Your task to perform on an android device: toggle notifications settings in the gmail app Image 0: 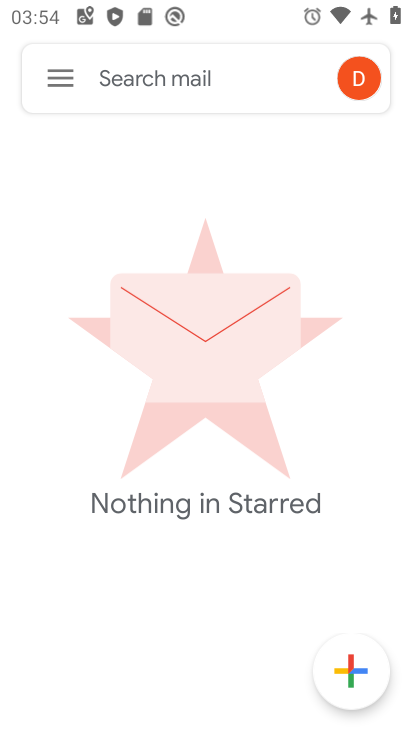
Step 0: press home button
Your task to perform on an android device: toggle notifications settings in the gmail app Image 1: 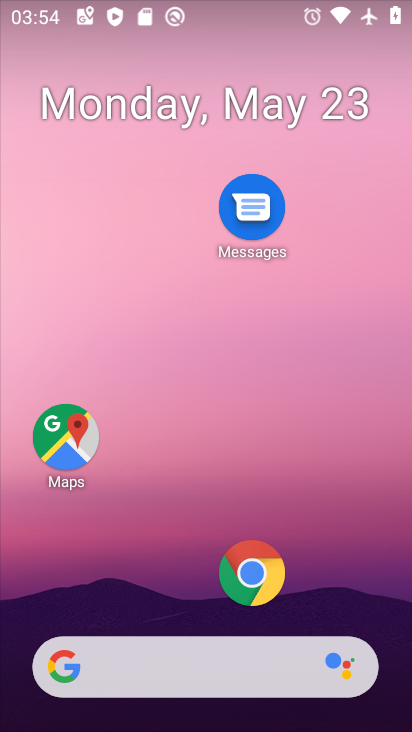
Step 1: drag from (263, 568) to (296, 13)
Your task to perform on an android device: toggle notifications settings in the gmail app Image 2: 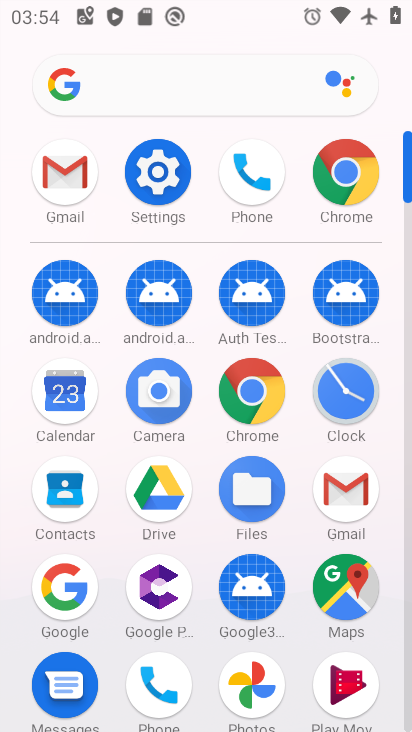
Step 2: click (347, 490)
Your task to perform on an android device: toggle notifications settings in the gmail app Image 3: 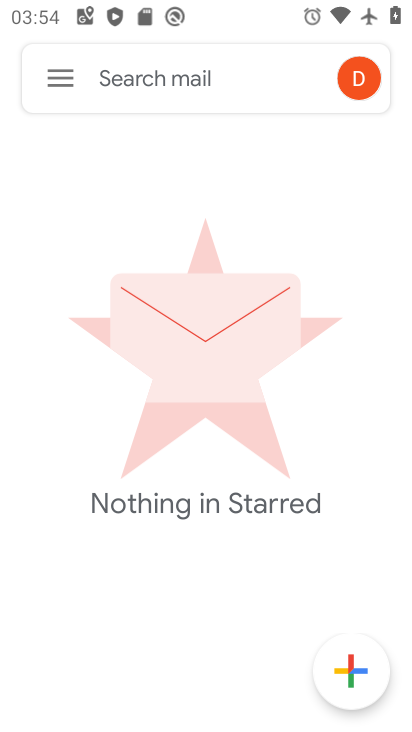
Step 3: click (69, 83)
Your task to perform on an android device: toggle notifications settings in the gmail app Image 4: 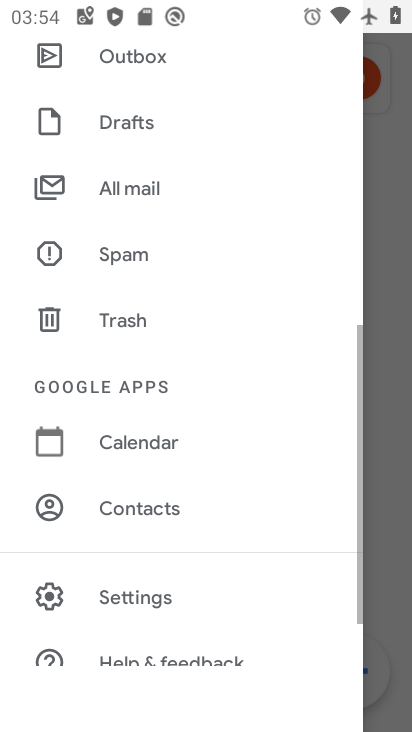
Step 4: click (194, 600)
Your task to perform on an android device: toggle notifications settings in the gmail app Image 5: 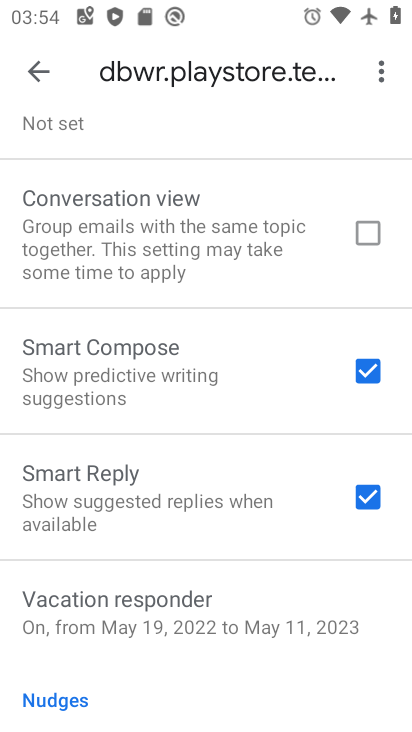
Step 5: drag from (209, 681) to (136, 137)
Your task to perform on an android device: toggle notifications settings in the gmail app Image 6: 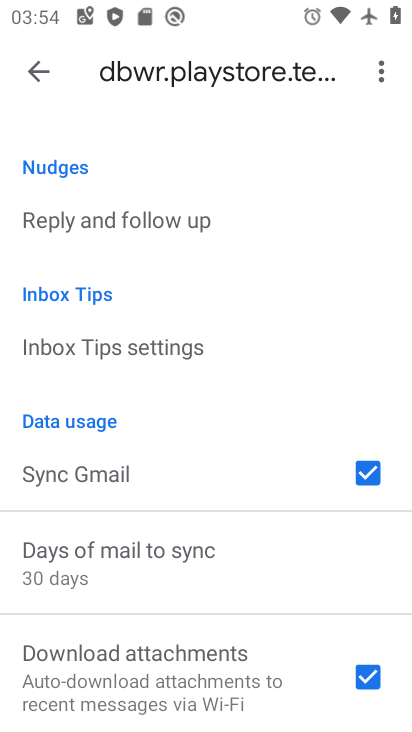
Step 6: drag from (149, 678) to (140, 242)
Your task to perform on an android device: toggle notifications settings in the gmail app Image 7: 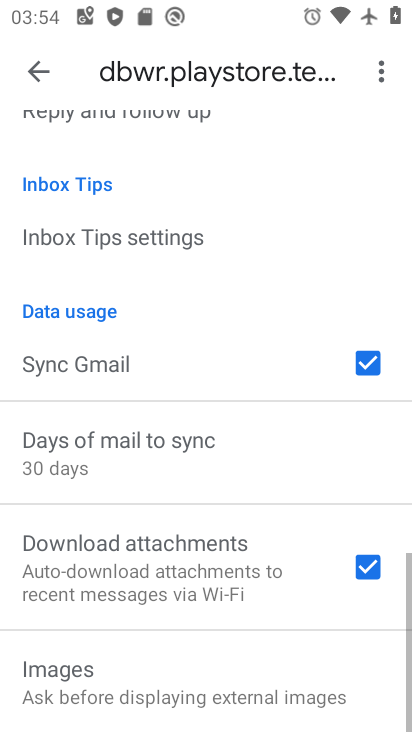
Step 7: drag from (145, 192) to (184, 711)
Your task to perform on an android device: toggle notifications settings in the gmail app Image 8: 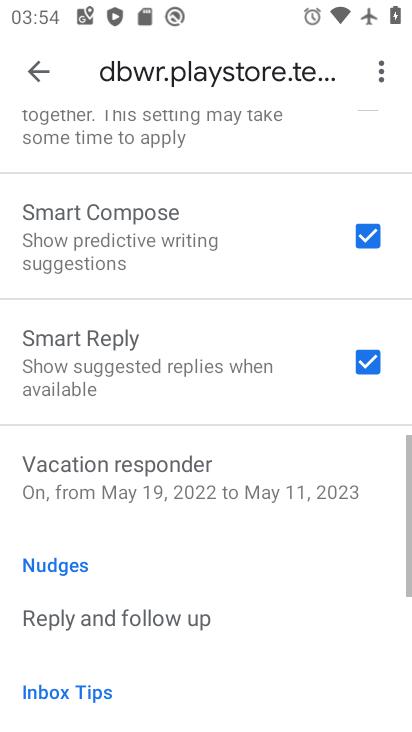
Step 8: drag from (165, 175) to (185, 723)
Your task to perform on an android device: toggle notifications settings in the gmail app Image 9: 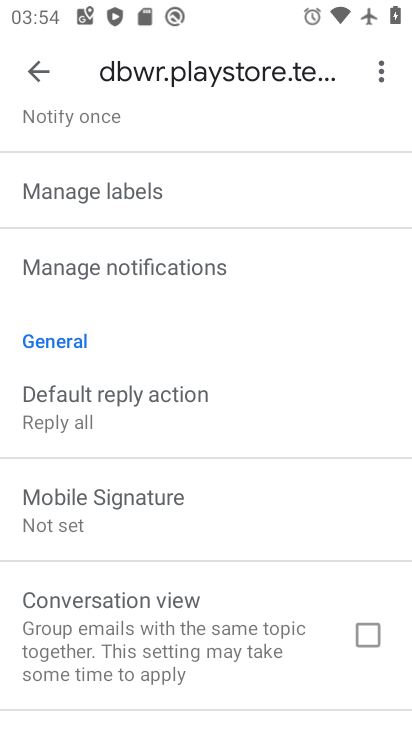
Step 9: click (181, 270)
Your task to perform on an android device: toggle notifications settings in the gmail app Image 10: 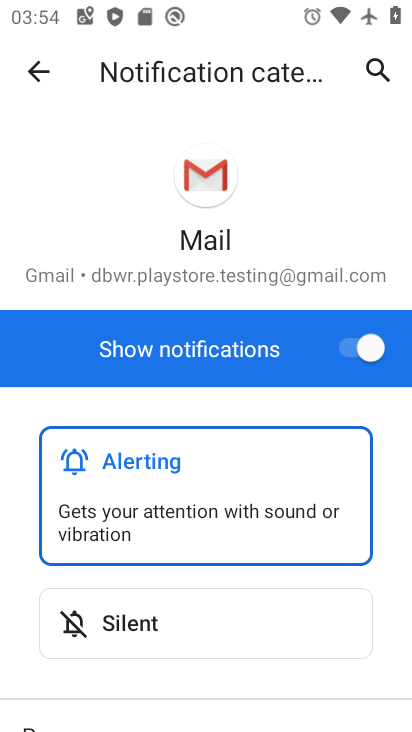
Step 10: click (355, 354)
Your task to perform on an android device: toggle notifications settings in the gmail app Image 11: 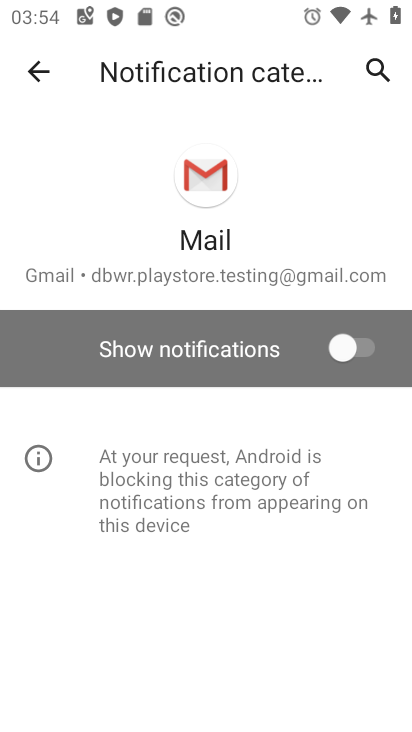
Step 11: task complete